Your task to perform on an android device: open sync settings in chrome Image 0: 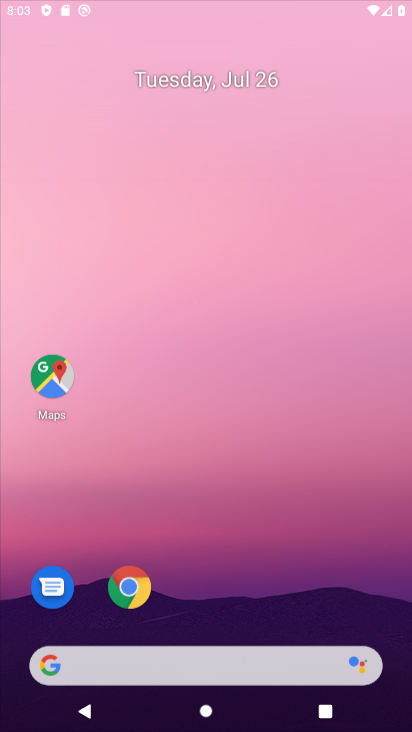
Step 0: click (242, 36)
Your task to perform on an android device: open sync settings in chrome Image 1: 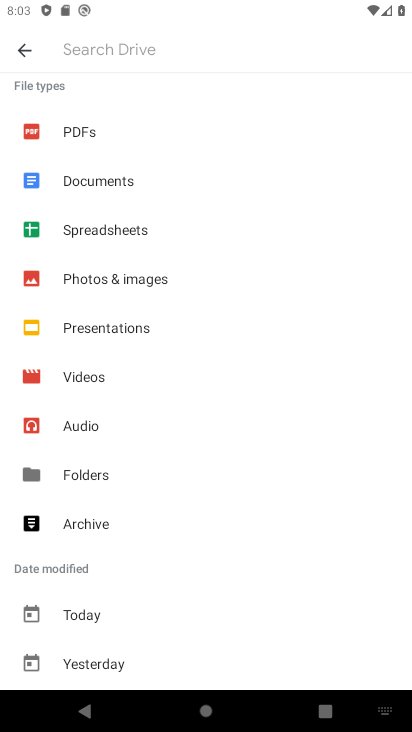
Step 1: press home button
Your task to perform on an android device: open sync settings in chrome Image 2: 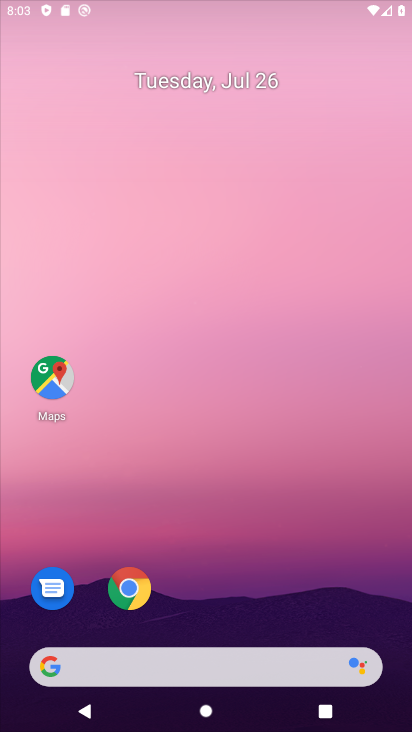
Step 2: drag from (279, 387) to (267, 27)
Your task to perform on an android device: open sync settings in chrome Image 3: 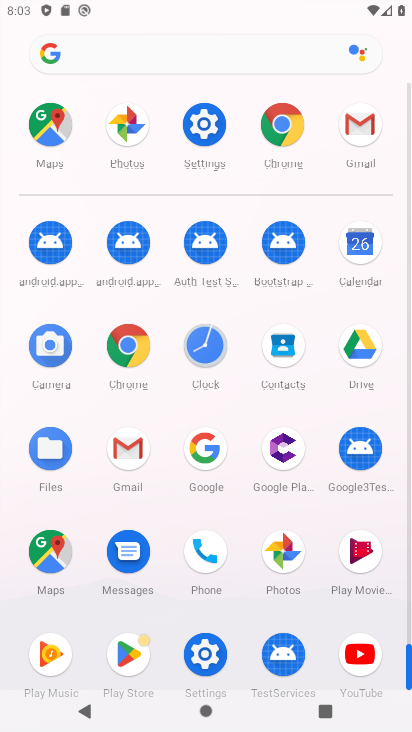
Step 3: click (286, 125)
Your task to perform on an android device: open sync settings in chrome Image 4: 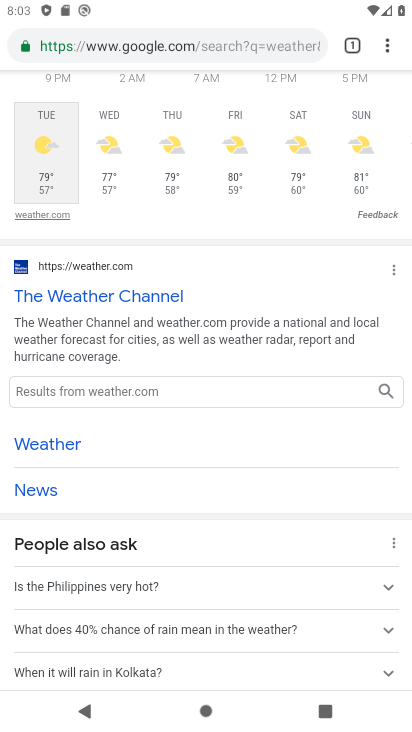
Step 4: drag from (385, 44) to (223, 505)
Your task to perform on an android device: open sync settings in chrome Image 5: 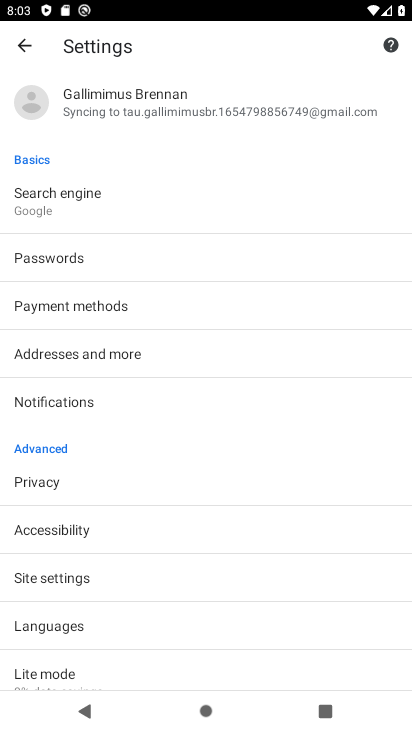
Step 5: click (117, 106)
Your task to perform on an android device: open sync settings in chrome Image 6: 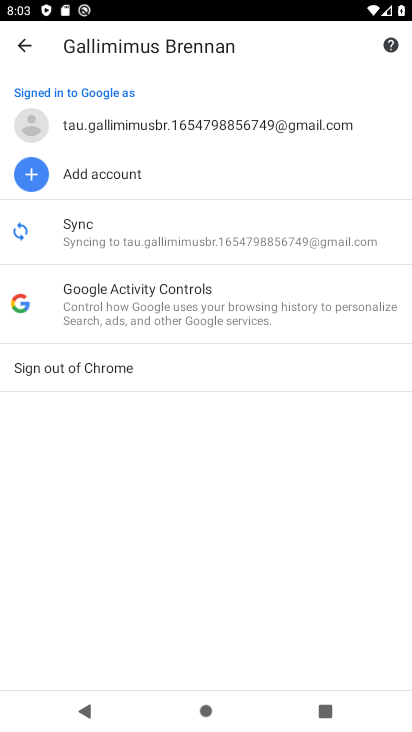
Step 6: click (111, 239)
Your task to perform on an android device: open sync settings in chrome Image 7: 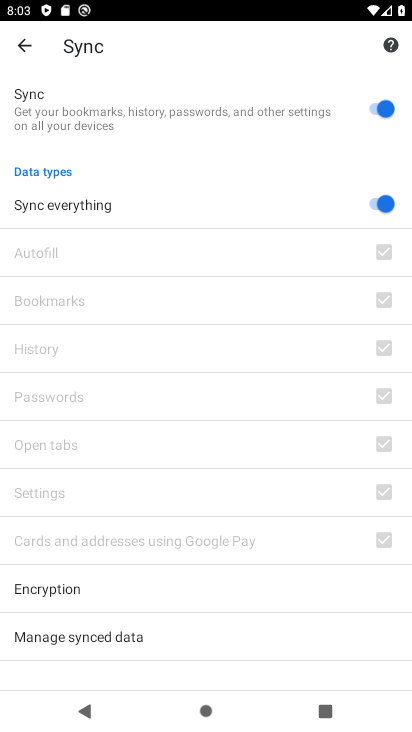
Step 7: task complete